Your task to perform on an android device: open app "Gmail" (install if not already installed) Image 0: 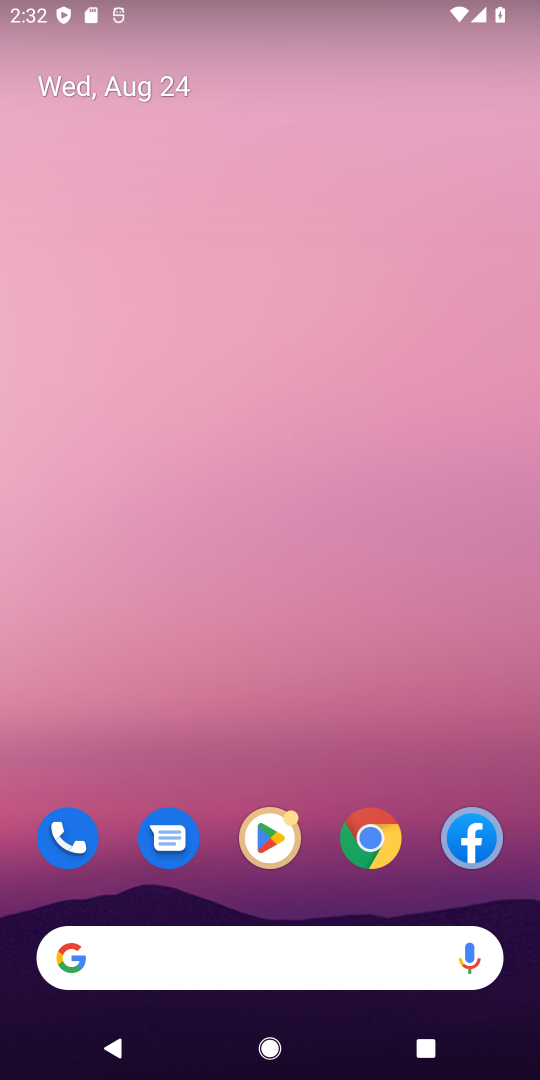
Step 0: press home button
Your task to perform on an android device: open app "Gmail" (install if not already installed) Image 1: 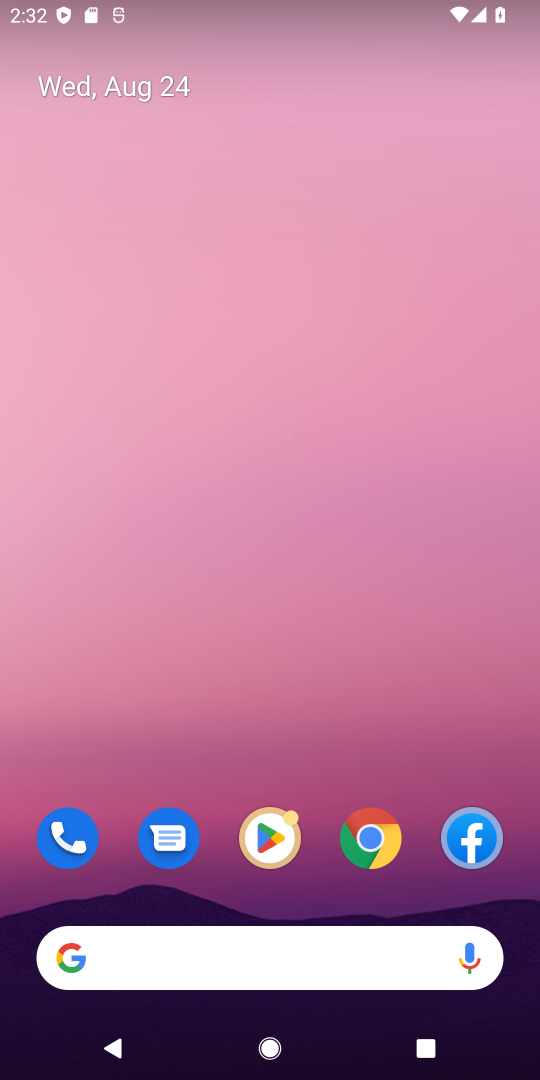
Step 1: drag from (460, 720) to (485, 106)
Your task to perform on an android device: open app "Gmail" (install if not already installed) Image 2: 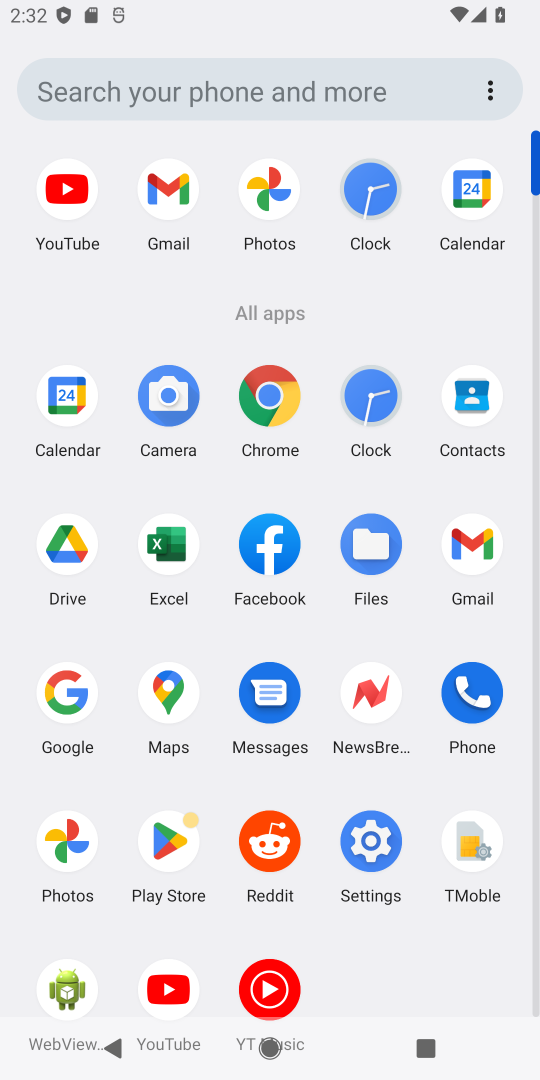
Step 2: click (171, 844)
Your task to perform on an android device: open app "Gmail" (install if not already installed) Image 3: 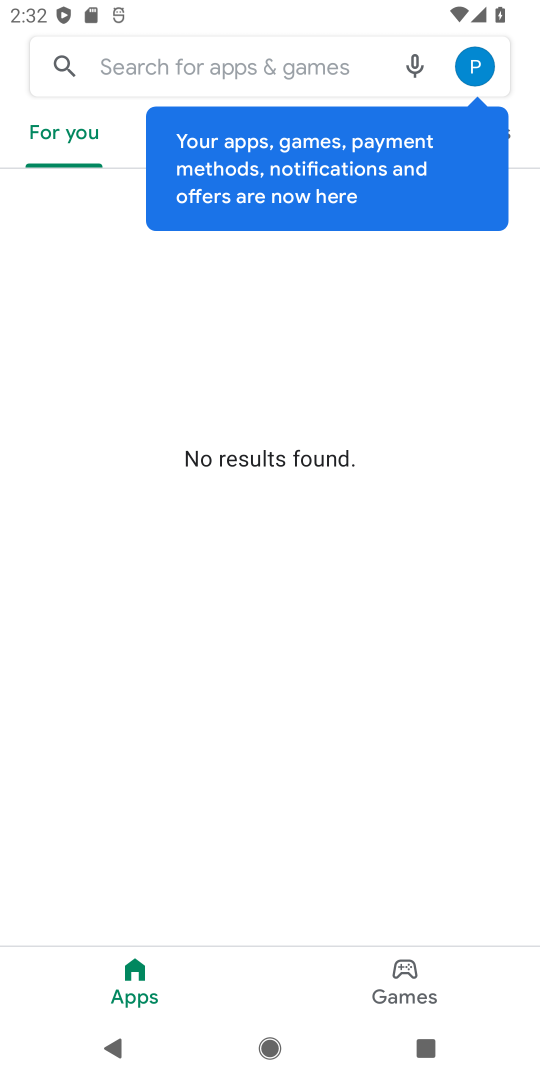
Step 3: click (181, 57)
Your task to perform on an android device: open app "Gmail" (install if not already installed) Image 4: 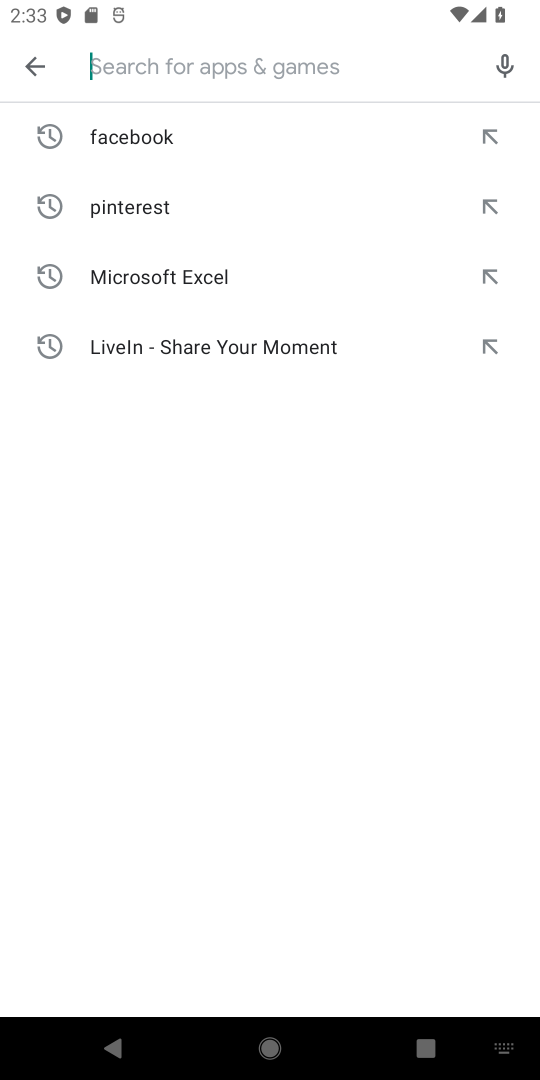
Step 4: press enter
Your task to perform on an android device: open app "Gmail" (install if not already installed) Image 5: 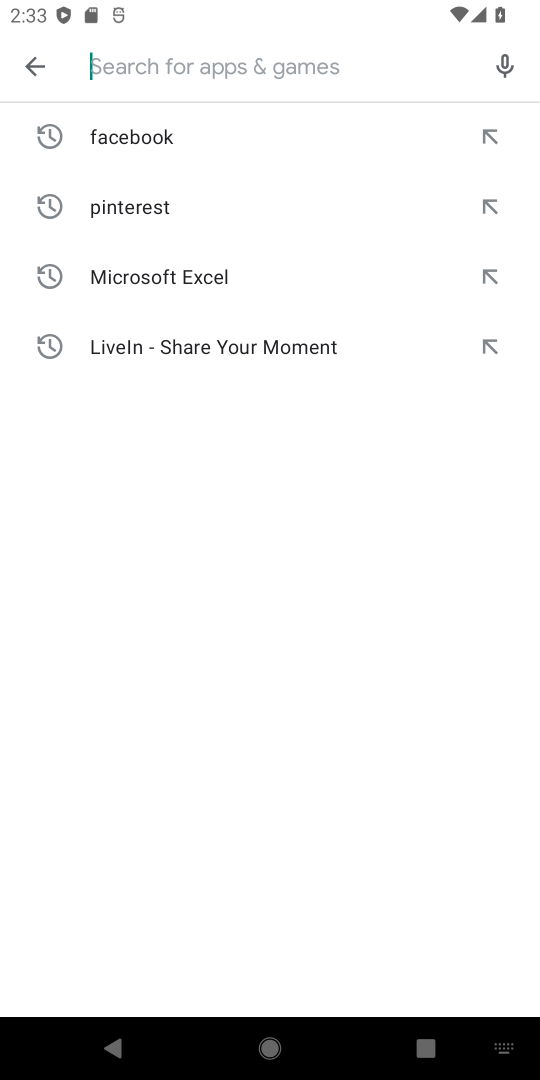
Step 5: type "gmail"
Your task to perform on an android device: open app "Gmail" (install if not already installed) Image 6: 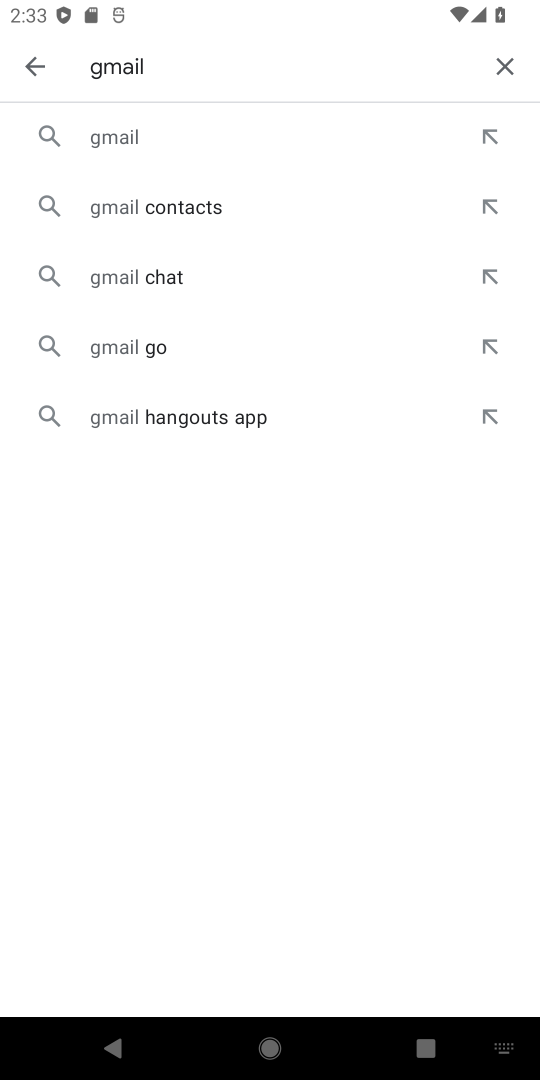
Step 6: click (189, 139)
Your task to perform on an android device: open app "Gmail" (install if not already installed) Image 7: 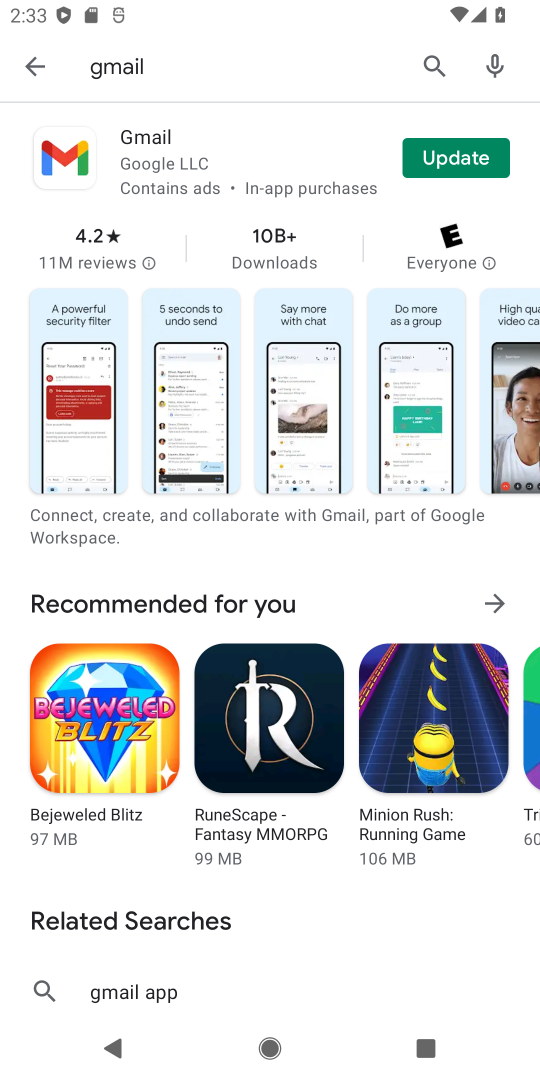
Step 7: click (458, 156)
Your task to perform on an android device: open app "Gmail" (install if not already installed) Image 8: 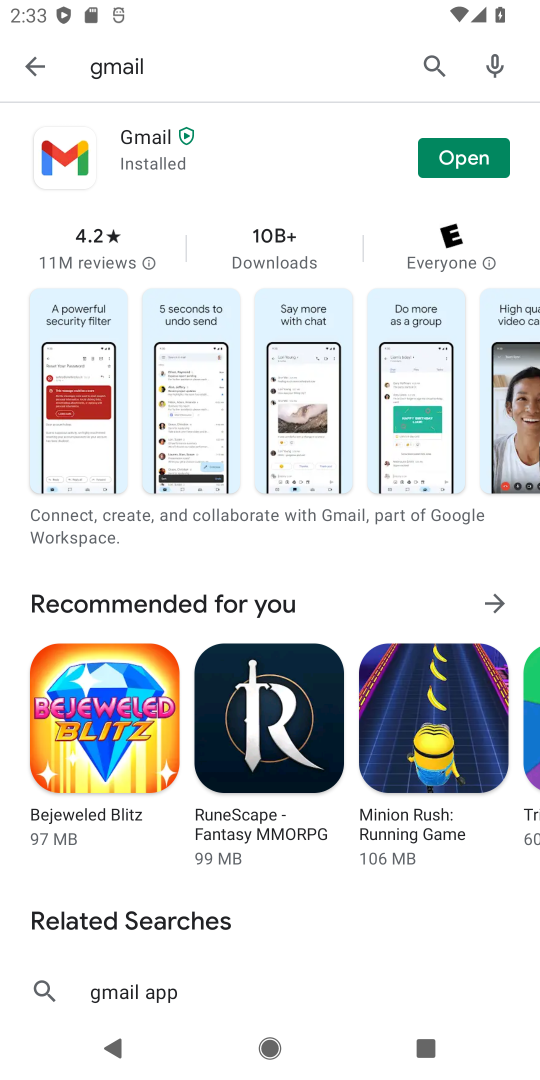
Step 8: click (468, 168)
Your task to perform on an android device: open app "Gmail" (install if not already installed) Image 9: 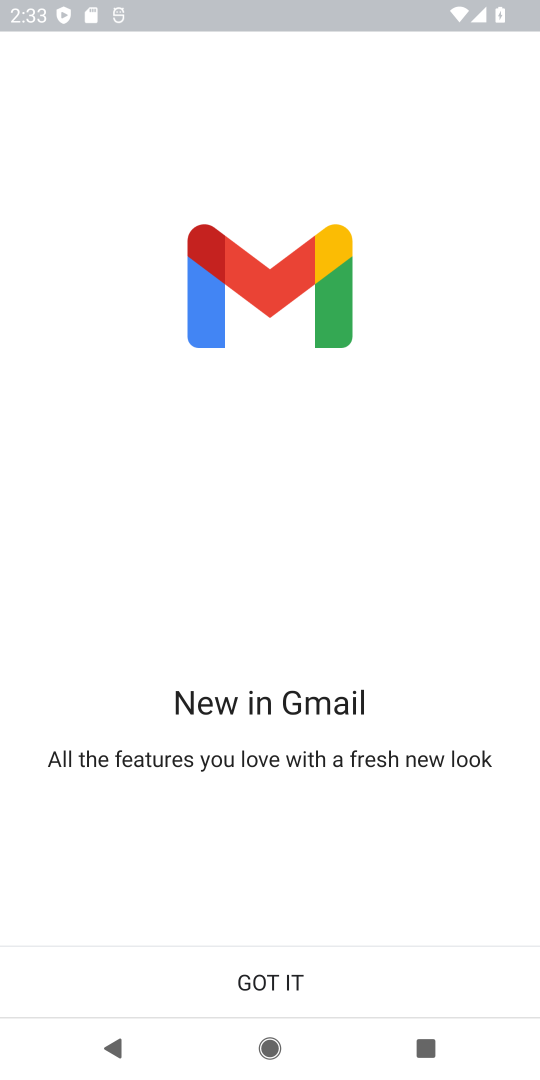
Step 9: task complete